Your task to perform on an android device: see tabs open on other devices in the chrome app Image 0: 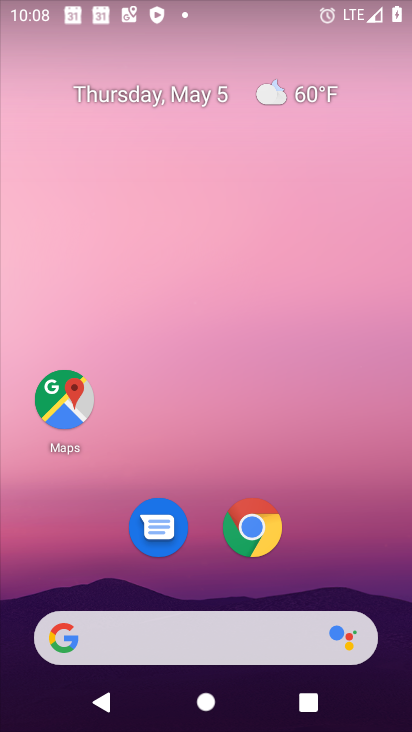
Step 0: click (266, 531)
Your task to perform on an android device: see tabs open on other devices in the chrome app Image 1: 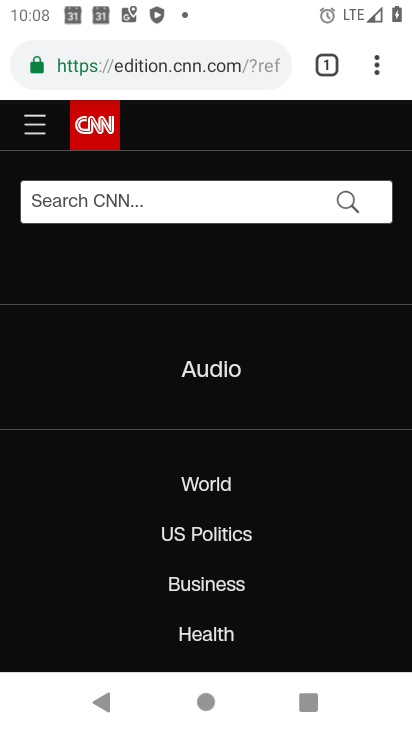
Step 1: drag from (376, 57) to (161, 381)
Your task to perform on an android device: see tabs open on other devices in the chrome app Image 2: 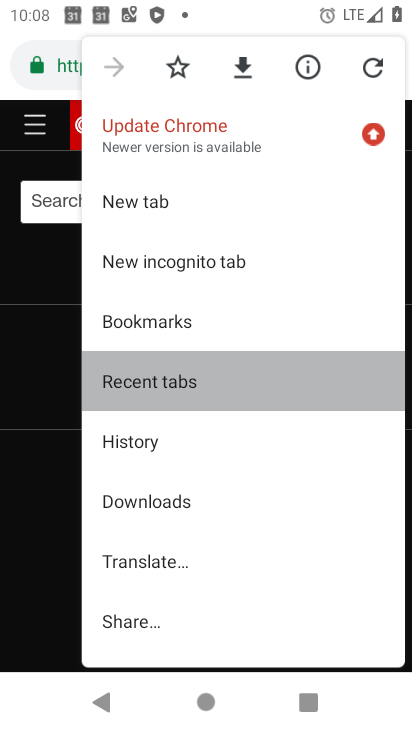
Step 2: click (161, 381)
Your task to perform on an android device: see tabs open on other devices in the chrome app Image 3: 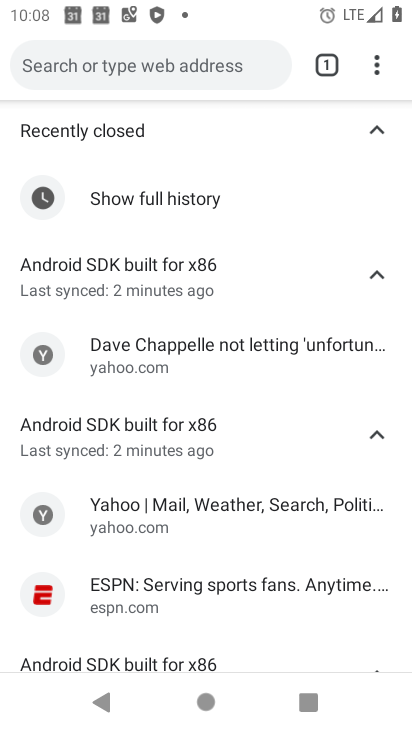
Step 3: task complete